Your task to perform on an android device: What is the recent news? Image 0: 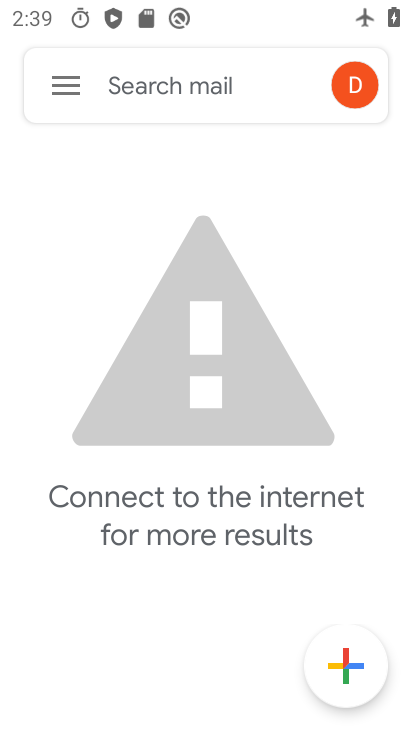
Step 0: press home button
Your task to perform on an android device: What is the recent news? Image 1: 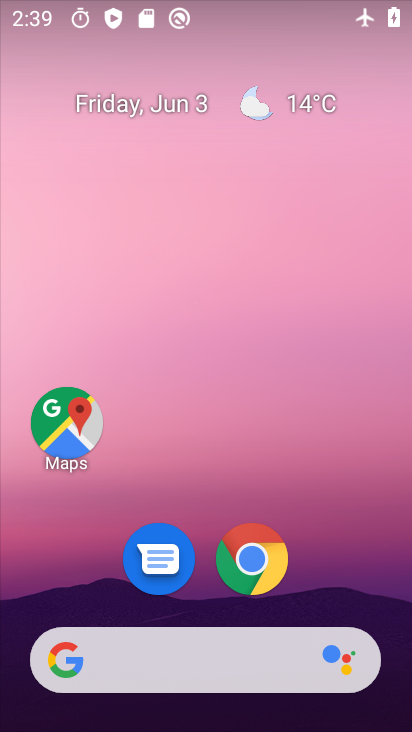
Step 1: click (198, 658)
Your task to perform on an android device: What is the recent news? Image 2: 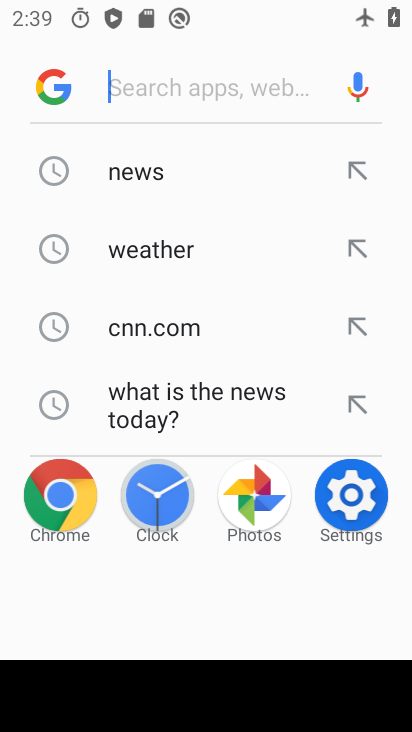
Step 2: click (136, 174)
Your task to perform on an android device: What is the recent news? Image 3: 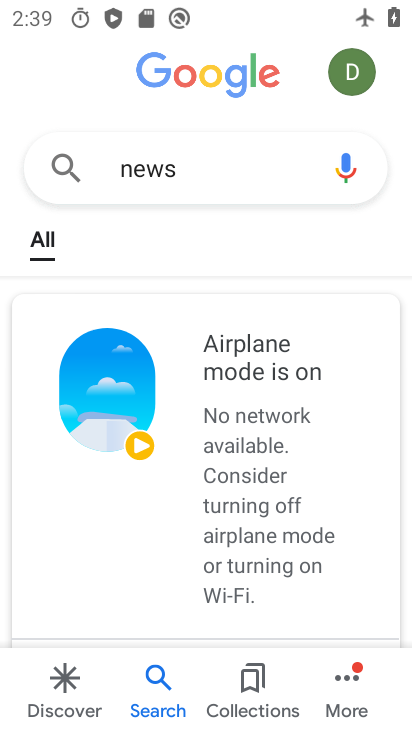
Step 3: task complete